Your task to perform on an android device: What's on my calendar tomorrow? Image 0: 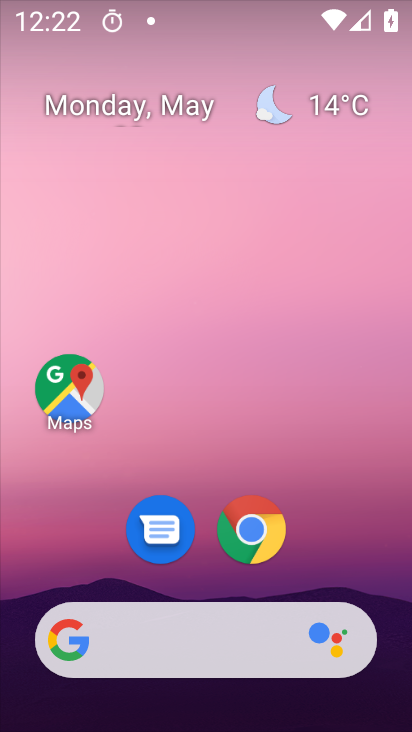
Step 0: drag from (375, 571) to (355, 204)
Your task to perform on an android device: What's on my calendar tomorrow? Image 1: 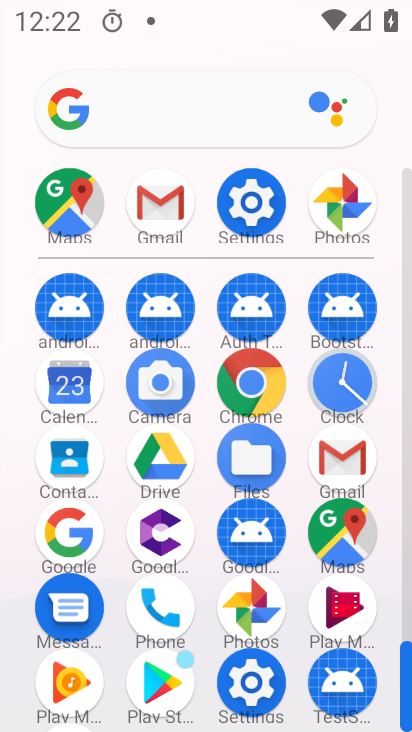
Step 1: click (83, 400)
Your task to perform on an android device: What's on my calendar tomorrow? Image 2: 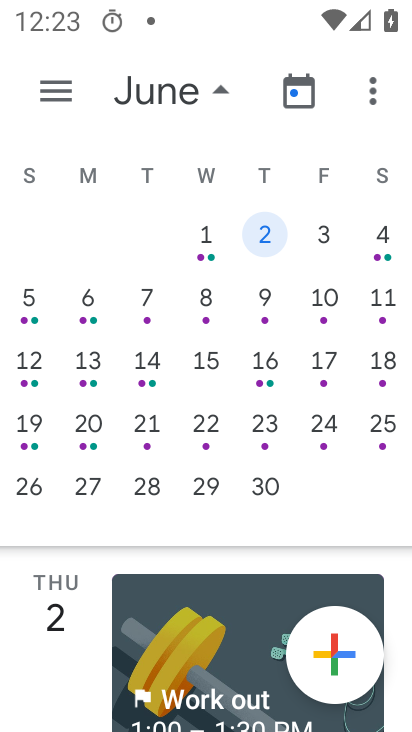
Step 2: drag from (53, 219) to (394, 330)
Your task to perform on an android device: What's on my calendar tomorrow? Image 3: 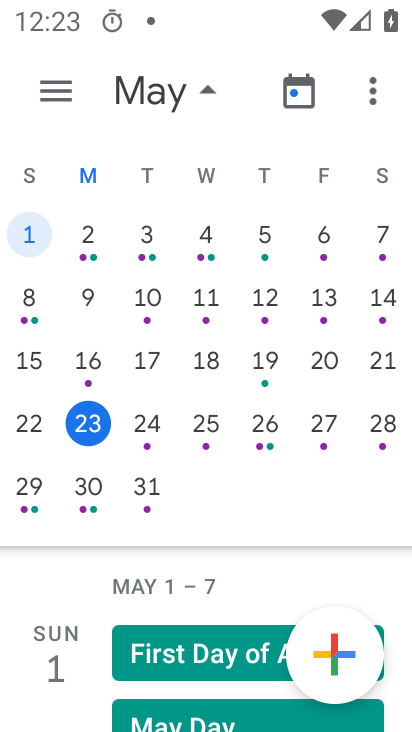
Step 3: click (148, 418)
Your task to perform on an android device: What's on my calendar tomorrow? Image 4: 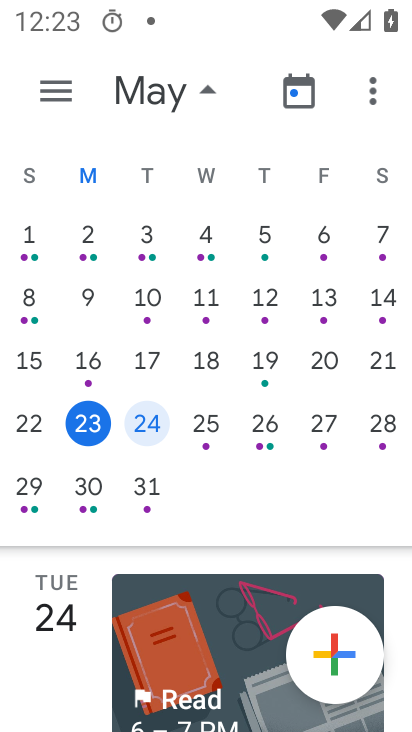
Step 4: task complete